Your task to perform on an android device: set the timer Image 0: 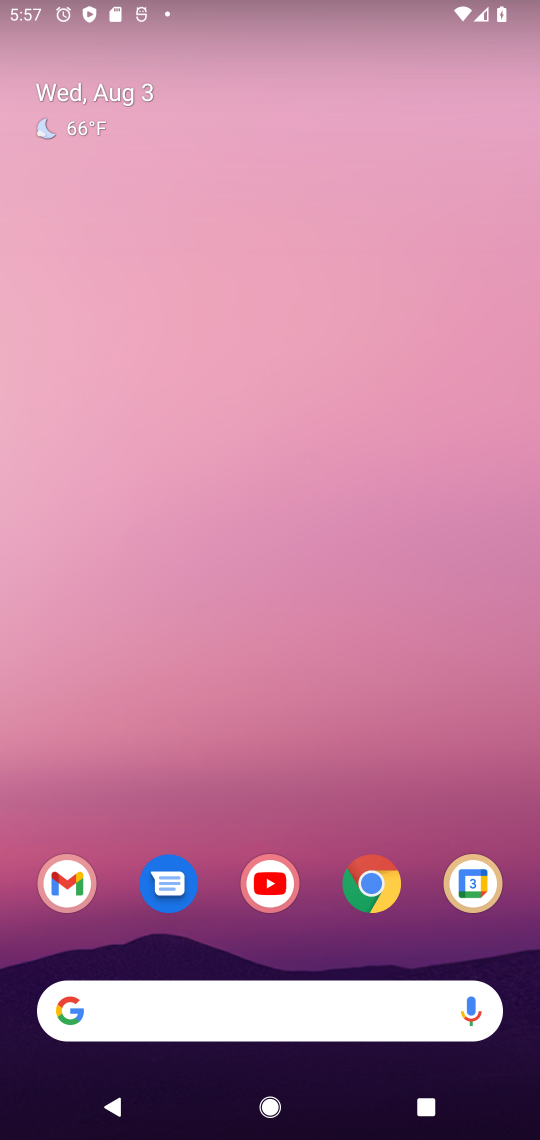
Step 0: drag from (246, 993) to (297, 127)
Your task to perform on an android device: set the timer Image 1: 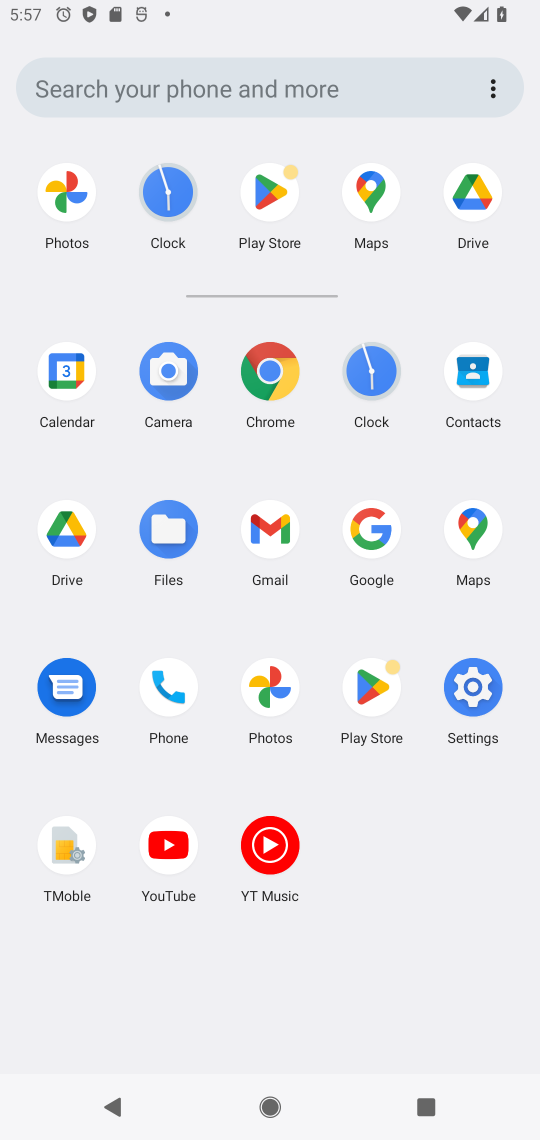
Step 1: click (383, 373)
Your task to perform on an android device: set the timer Image 2: 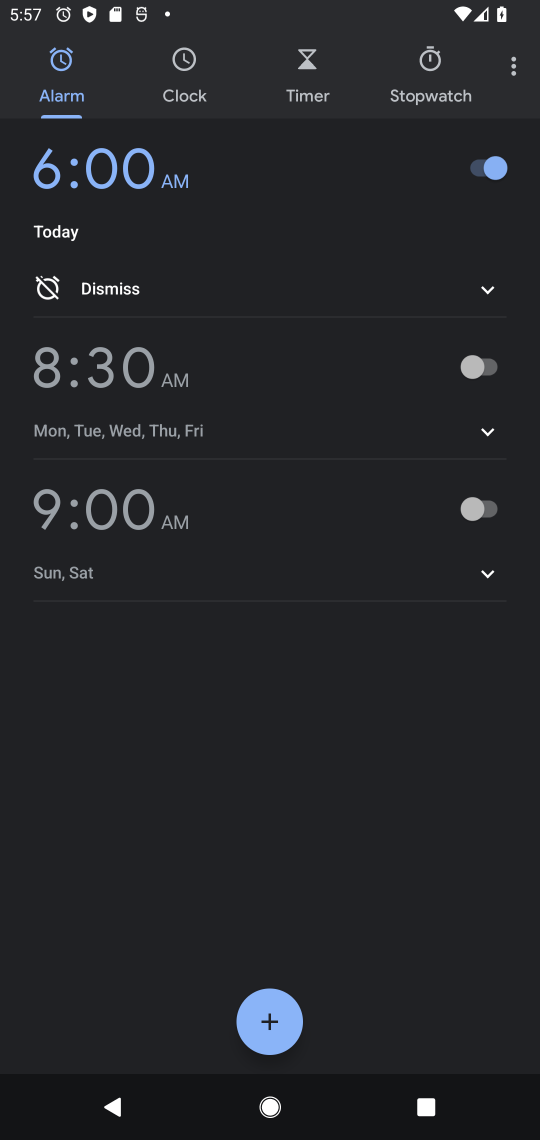
Step 2: click (335, 80)
Your task to perform on an android device: set the timer Image 3: 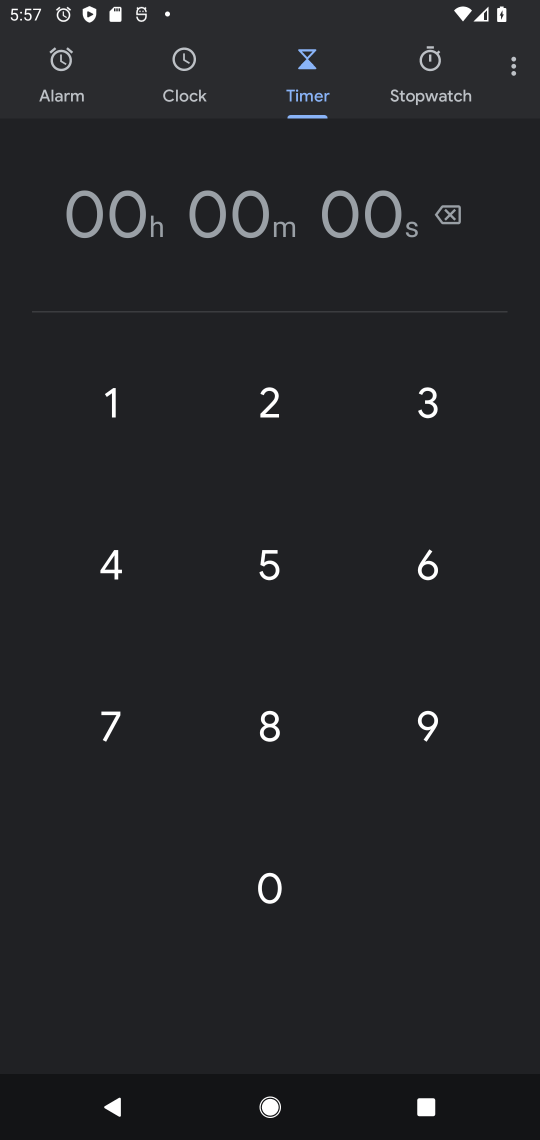
Step 3: click (274, 882)
Your task to perform on an android device: set the timer Image 4: 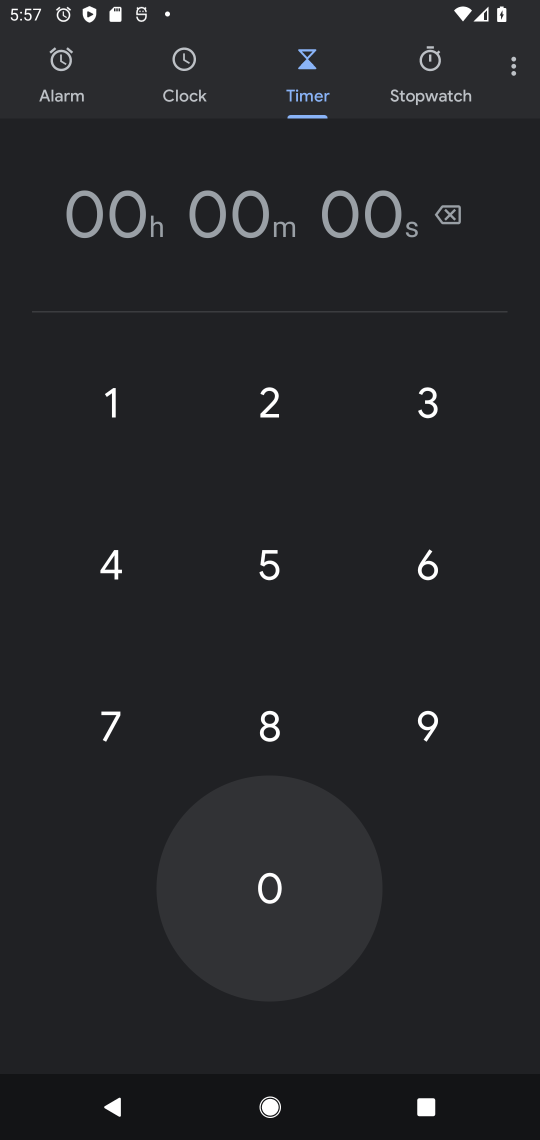
Step 4: click (268, 553)
Your task to perform on an android device: set the timer Image 5: 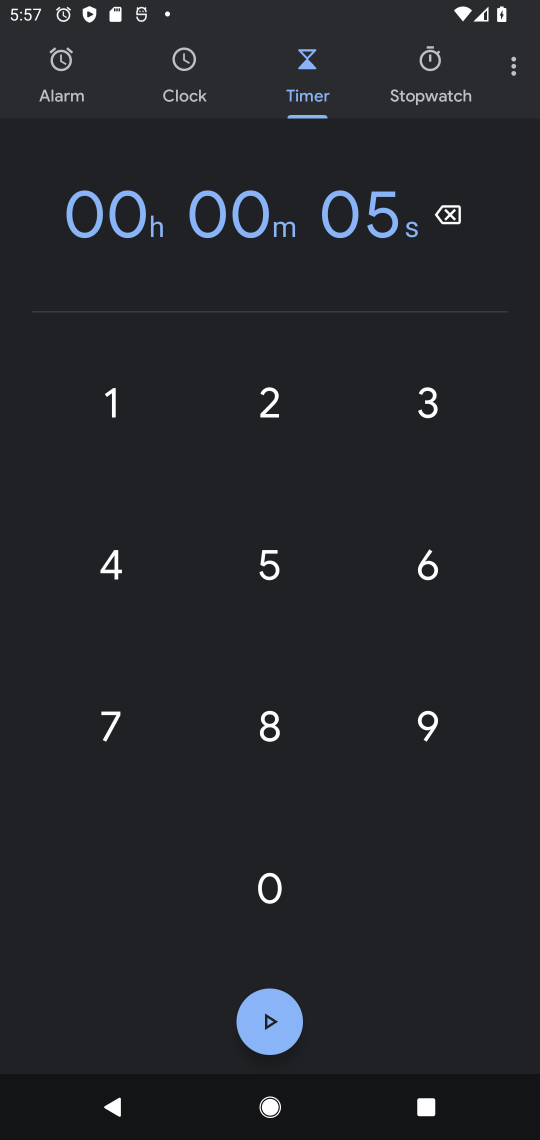
Step 5: click (272, 892)
Your task to perform on an android device: set the timer Image 6: 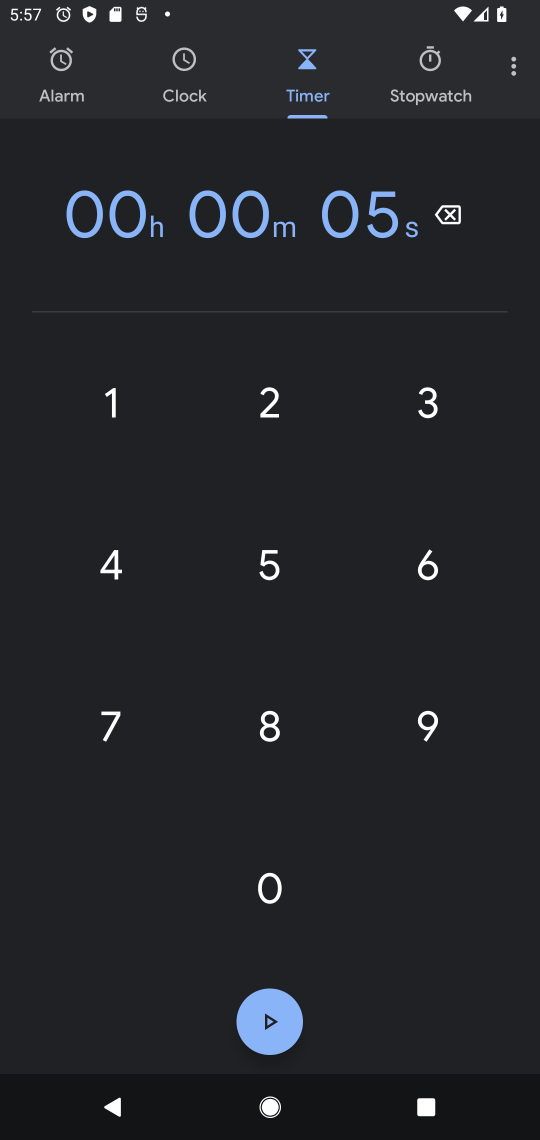
Step 6: click (272, 892)
Your task to perform on an android device: set the timer Image 7: 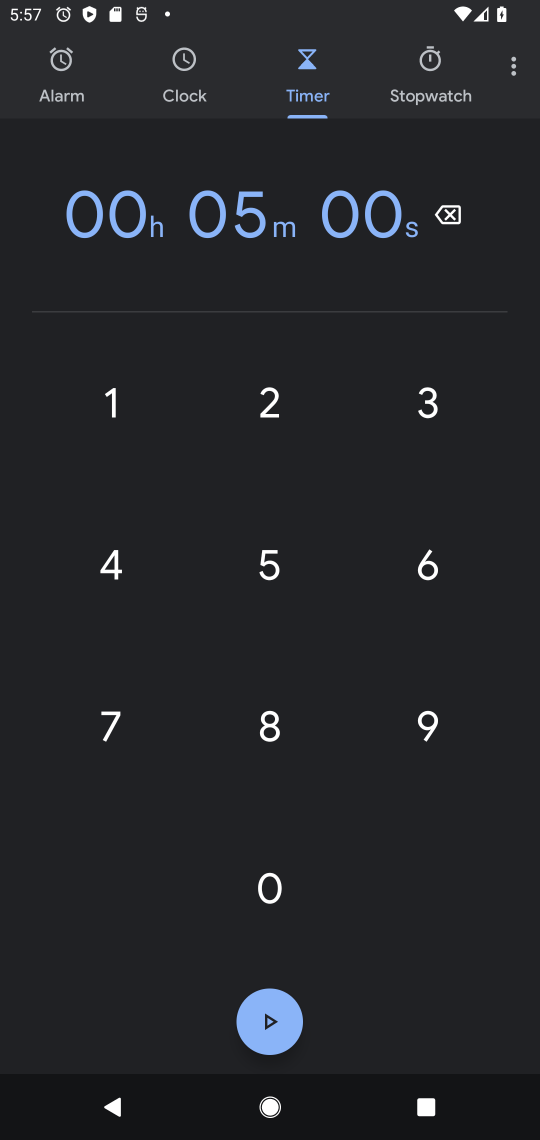
Step 7: click (266, 1036)
Your task to perform on an android device: set the timer Image 8: 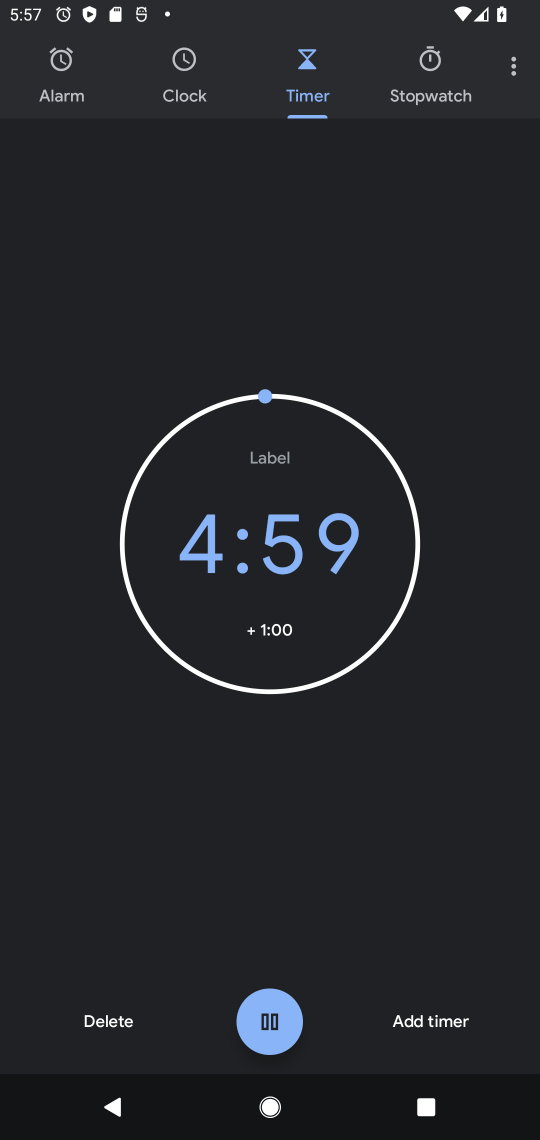
Step 8: task complete